Your task to perform on an android device: turn on translation in the chrome app Image 0: 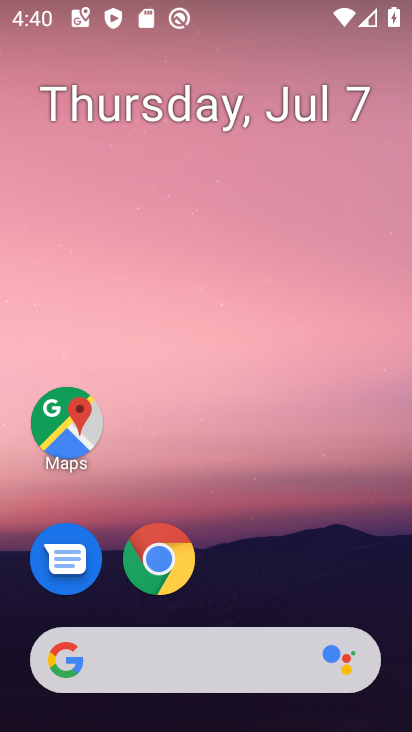
Step 0: click (157, 570)
Your task to perform on an android device: turn on translation in the chrome app Image 1: 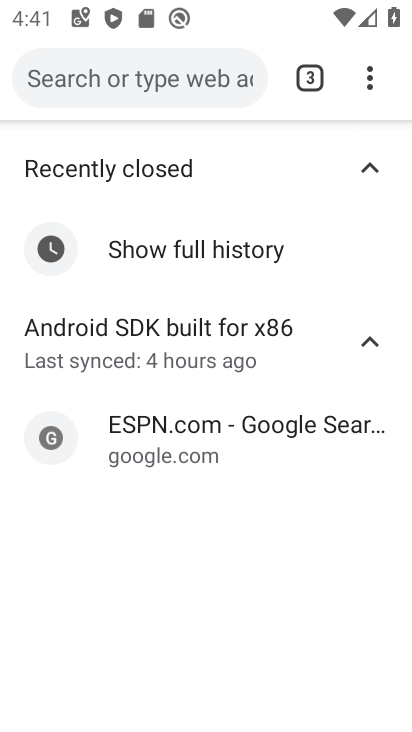
Step 1: drag from (364, 76) to (137, 623)
Your task to perform on an android device: turn on translation in the chrome app Image 2: 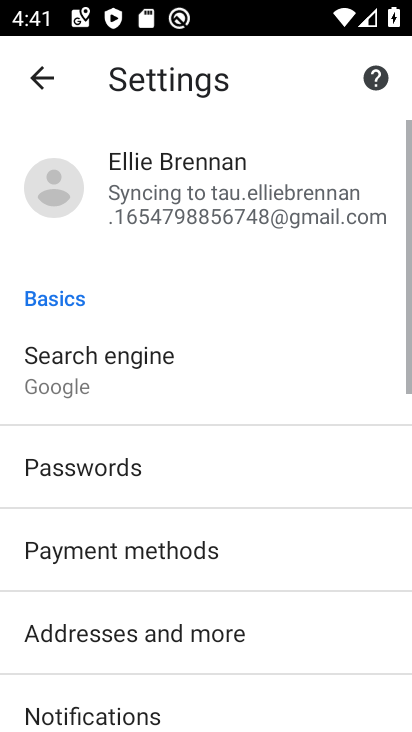
Step 2: drag from (149, 584) to (237, 7)
Your task to perform on an android device: turn on translation in the chrome app Image 3: 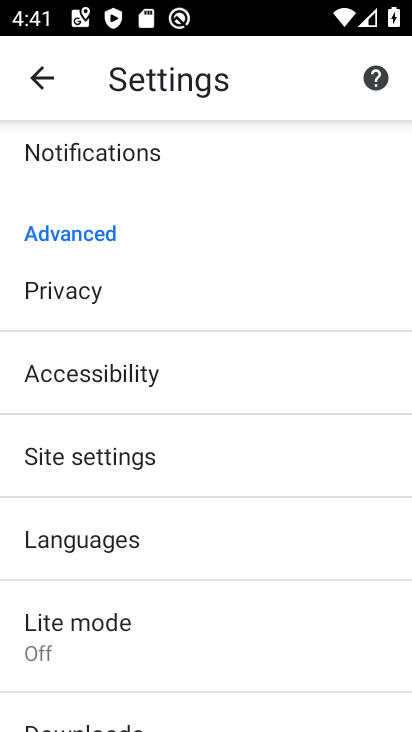
Step 3: click (117, 550)
Your task to perform on an android device: turn on translation in the chrome app Image 4: 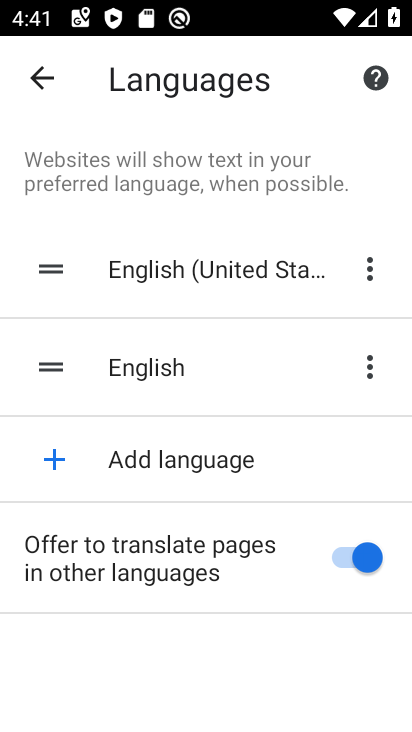
Step 4: task complete